Your task to perform on an android device: change keyboard looks Image 0: 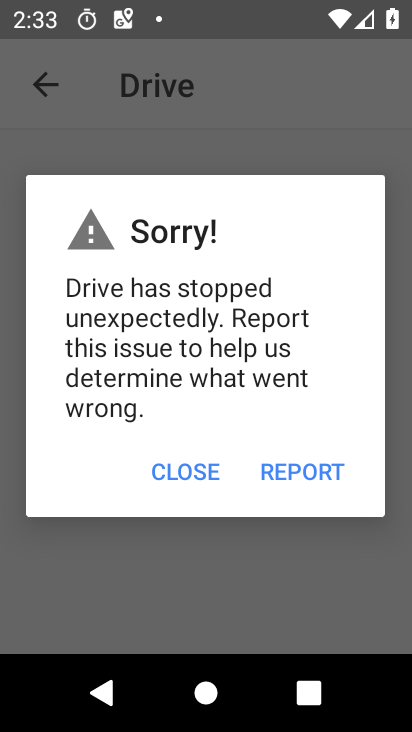
Step 0: press home button
Your task to perform on an android device: change keyboard looks Image 1: 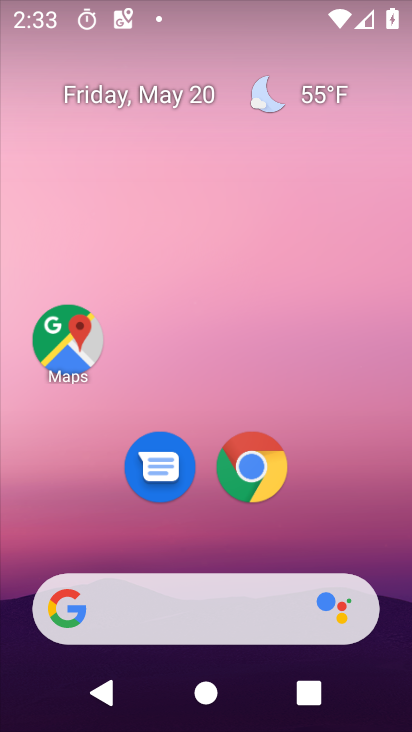
Step 1: drag from (230, 562) to (199, 3)
Your task to perform on an android device: change keyboard looks Image 2: 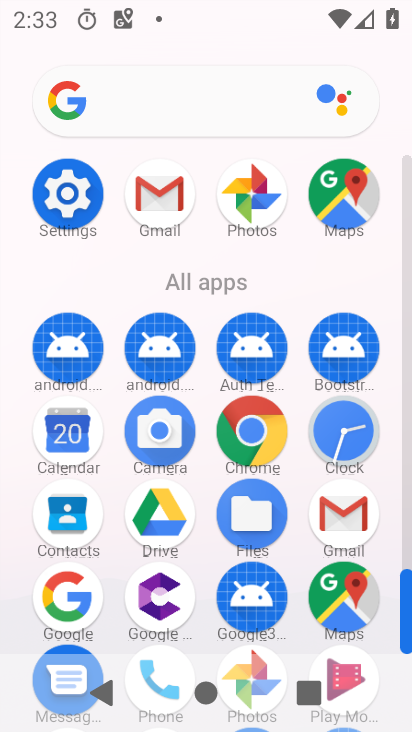
Step 2: click (76, 196)
Your task to perform on an android device: change keyboard looks Image 3: 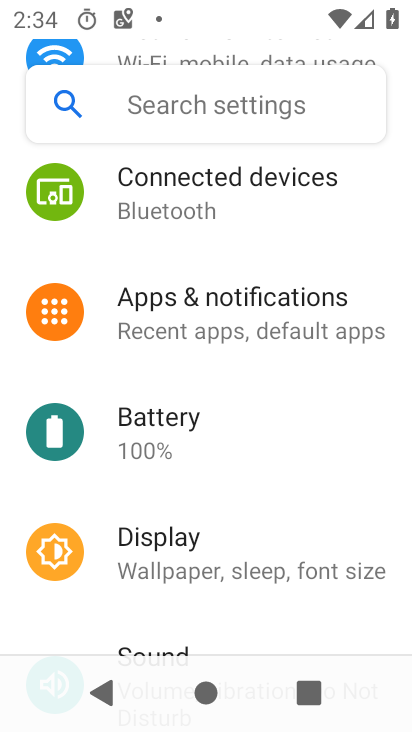
Step 3: drag from (191, 570) to (204, 11)
Your task to perform on an android device: change keyboard looks Image 4: 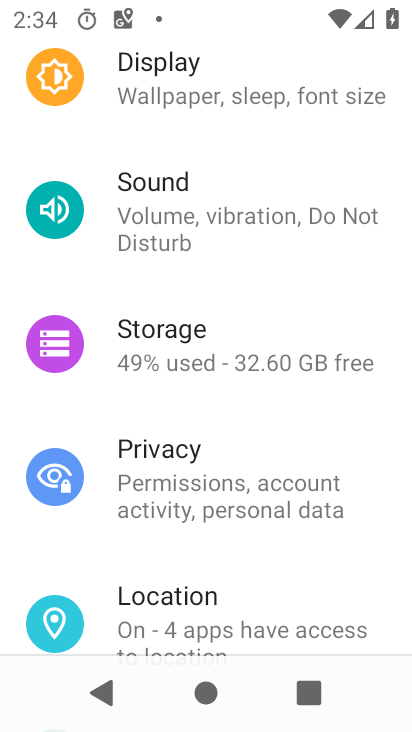
Step 4: drag from (265, 552) to (242, 112)
Your task to perform on an android device: change keyboard looks Image 5: 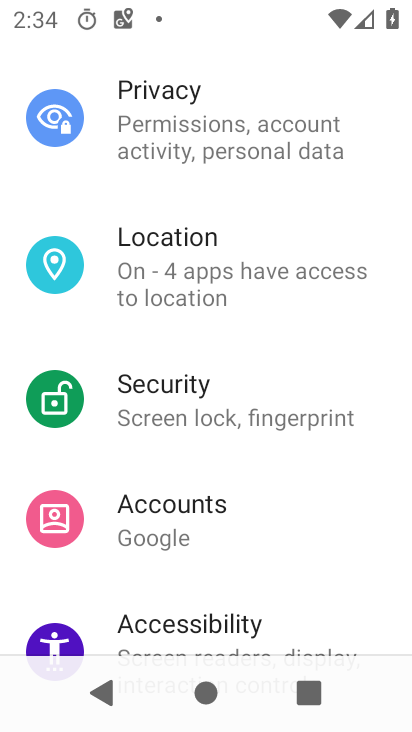
Step 5: drag from (256, 595) to (255, 163)
Your task to perform on an android device: change keyboard looks Image 6: 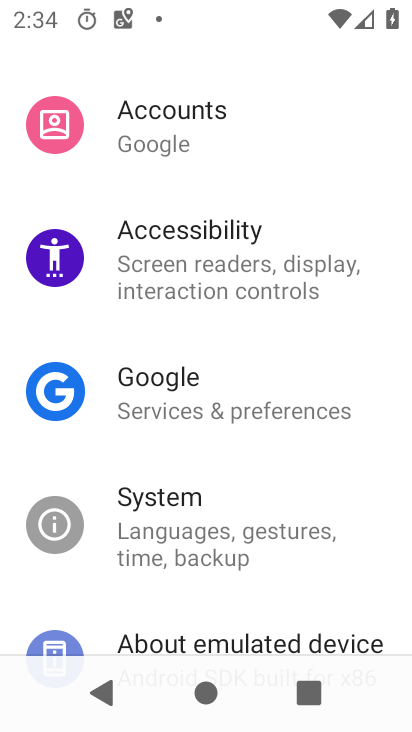
Step 6: click (216, 533)
Your task to perform on an android device: change keyboard looks Image 7: 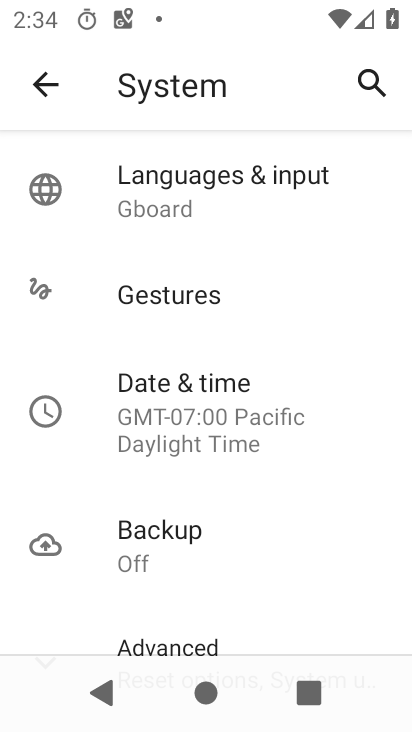
Step 7: click (253, 184)
Your task to perform on an android device: change keyboard looks Image 8: 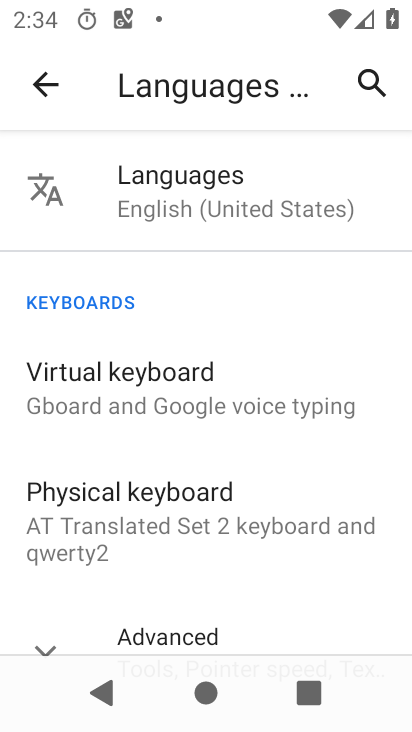
Step 8: click (214, 388)
Your task to perform on an android device: change keyboard looks Image 9: 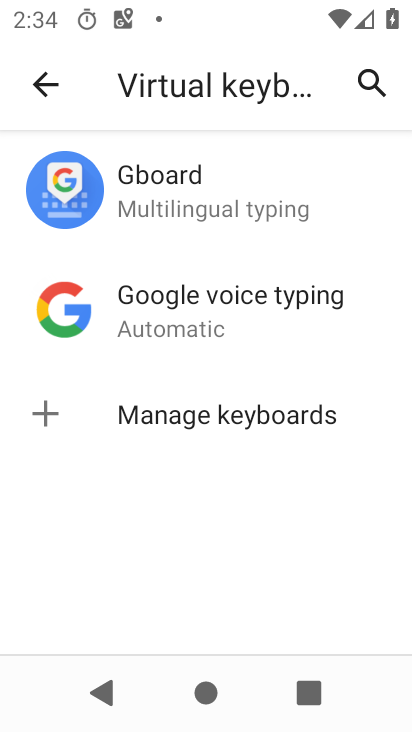
Step 9: click (224, 215)
Your task to perform on an android device: change keyboard looks Image 10: 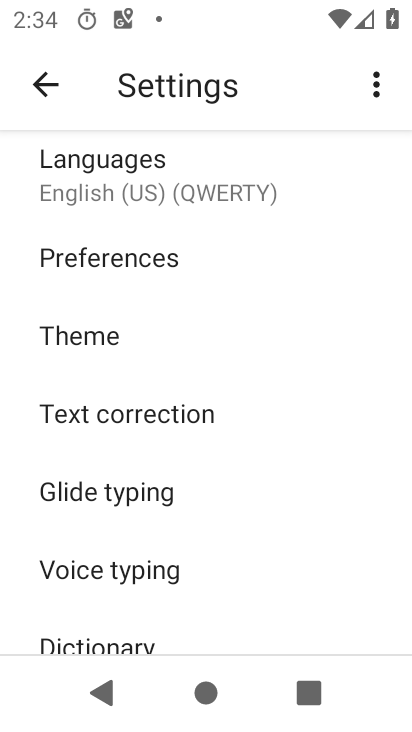
Step 10: click (93, 346)
Your task to perform on an android device: change keyboard looks Image 11: 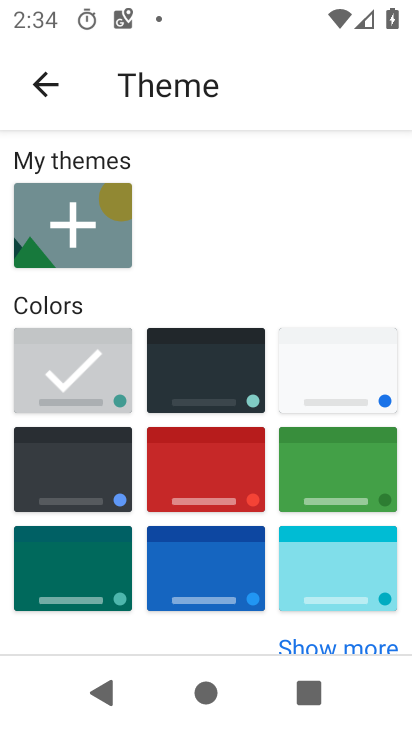
Step 11: click (209, 480)
Your task to perform on an android device: change keyboard looks Image 12: 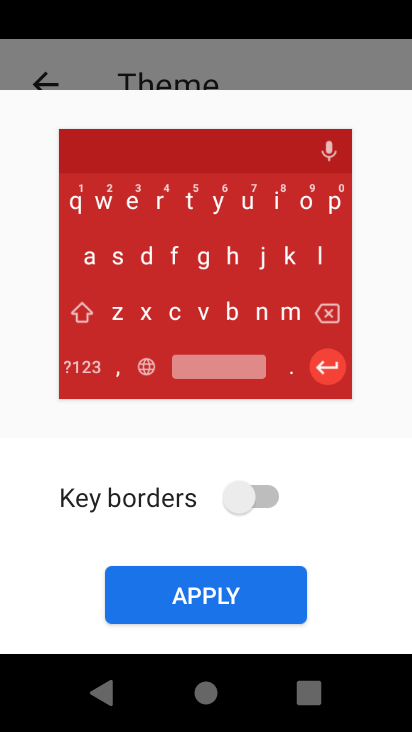
Step 12: click (251, 603)
Your task to perform on an android device: change keyboard looks Image 13: 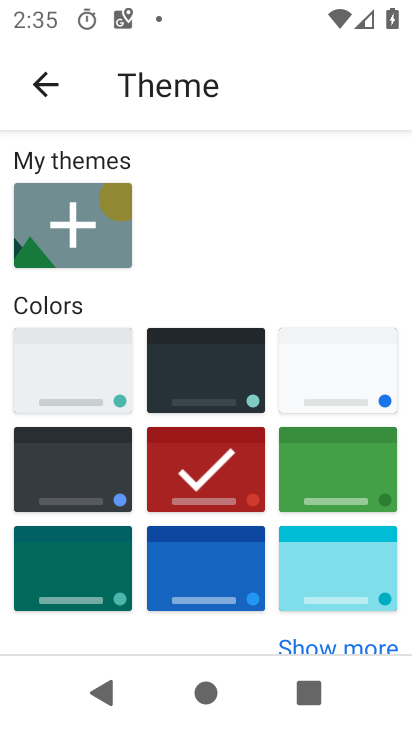
Step 13: task complete